Your task to perform on an android device: Go to Google Image 0: 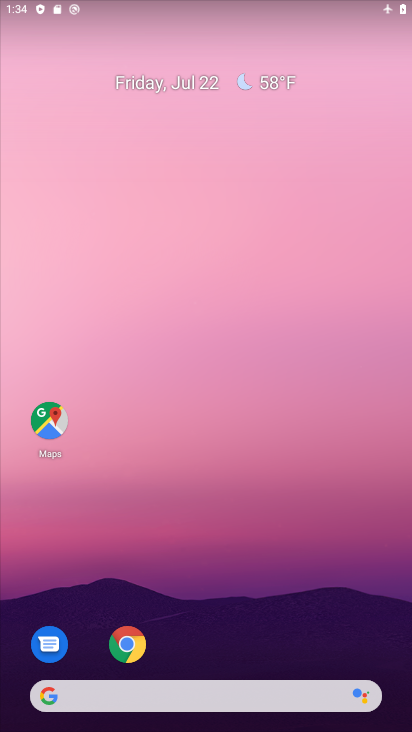
Step 0: drag from (197, 680) to (178, 235)
Your task to perform on an android device: Go to Google Image 1: 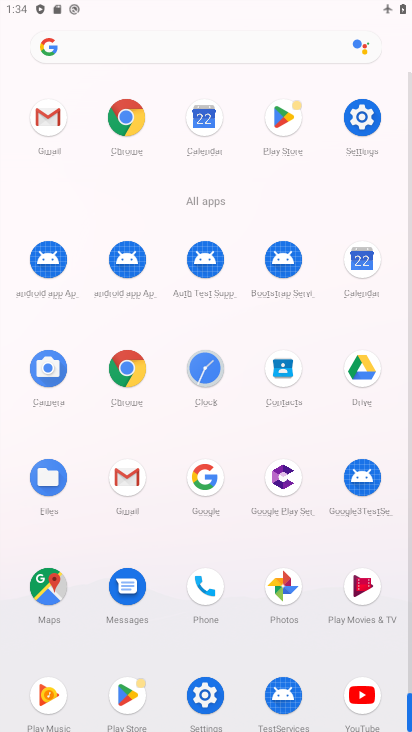
Step 1: click (202, 466)
Your task to perform on an android device: Go to Google Image 2: 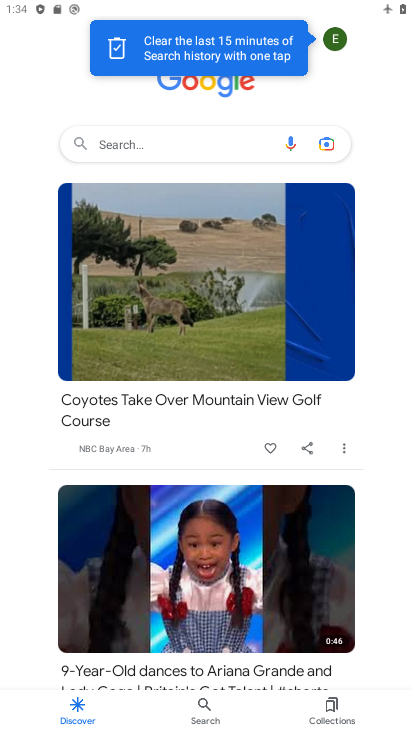
Step 2: task complete